Your task to perform on an android device: What's the weather today? Image 0: 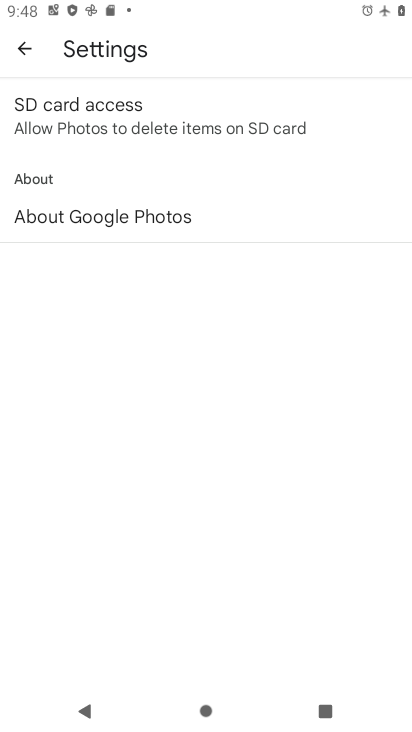
Step 0: press home button
Your task to perform on an android device: What's the weather today? Image 1: 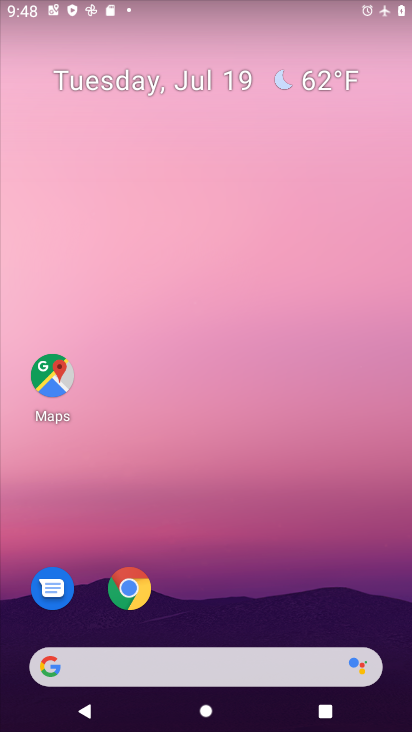
Step 1: drag from (303, 631) to (169, 8)
Your task to perform on an android device: What's the weather today? Image 2: 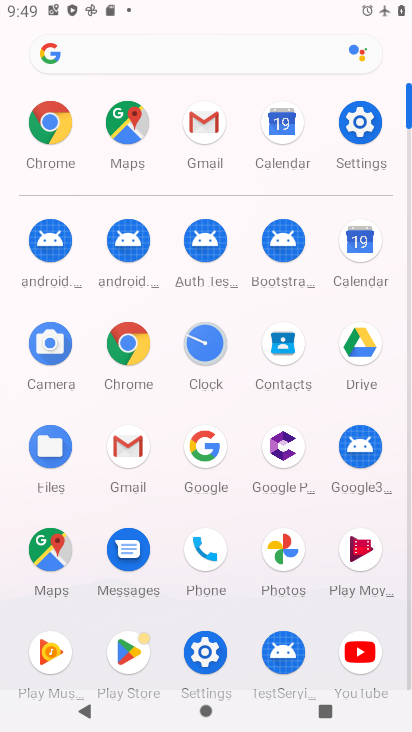
Step 2: click (211, 462)
Your task to perform on an android device: What's the weather today? Image 3: 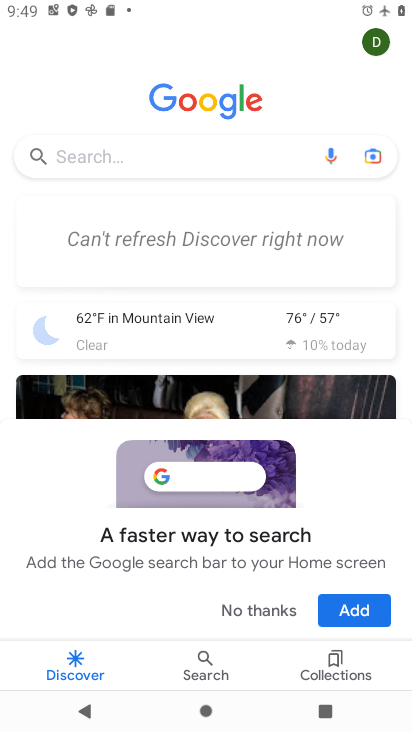
Step 3: click (117, 140)
Your task to perform on an android device: What's the weather today? Image 4: 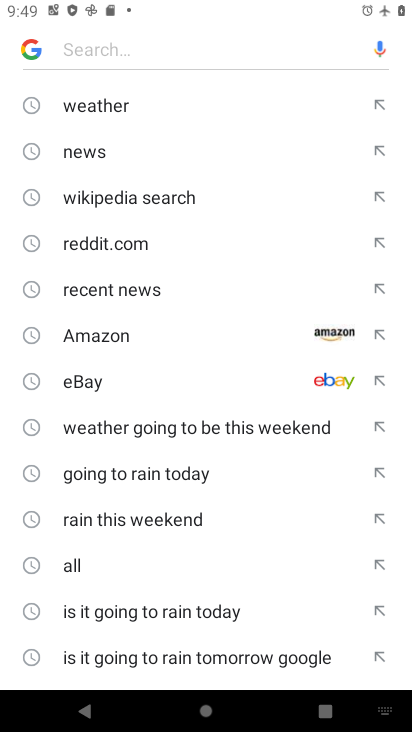
Step 4: press back button
Your task to perform on an android device: What's the weather today? Image 5: 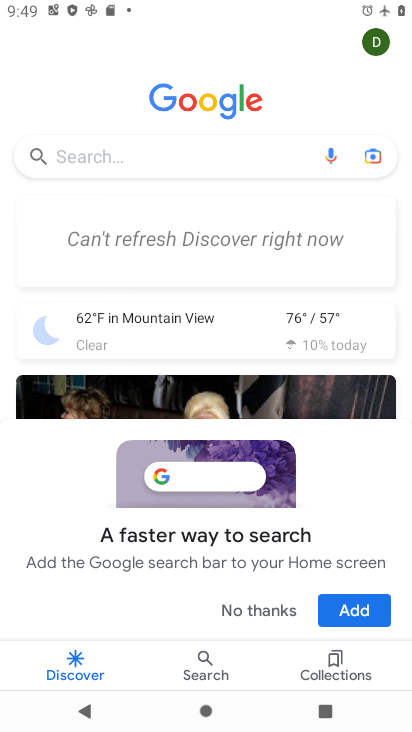
Step 5: click (207, 313)
Your task to perform on an android device: What's the weather today? Image 6: 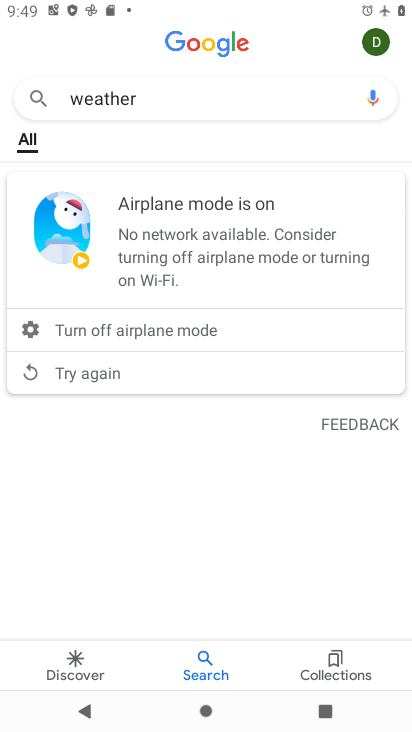
Step 6: task complete